Your task to perform on an android device: show emergency info Image 0: 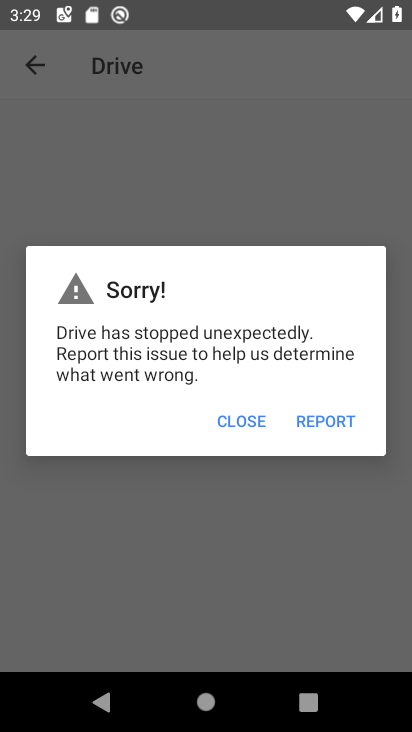
Step 0: press home button
Your task to perform on an android device: show emergency info Image 1: 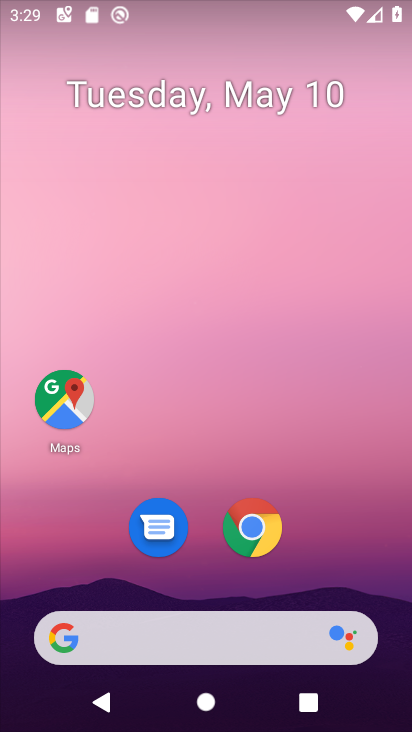
Step 1: drag from (396, 644) to (321, 310)
Your task to perform on an android device: show emergency info Image 2: 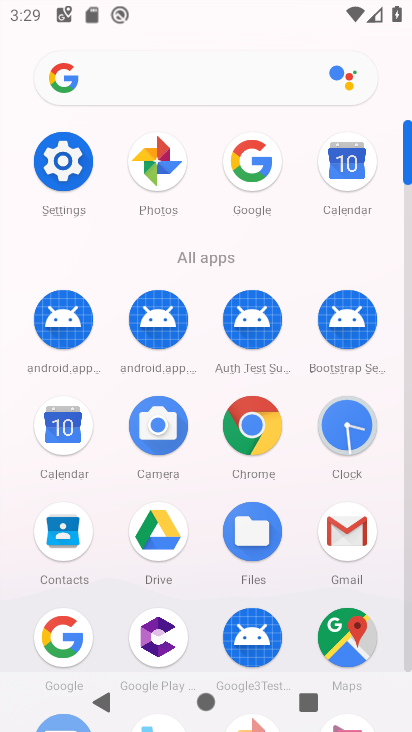
Step 2: click (68, 169)
Your task to perform on an android device: show emergency info Image 3: 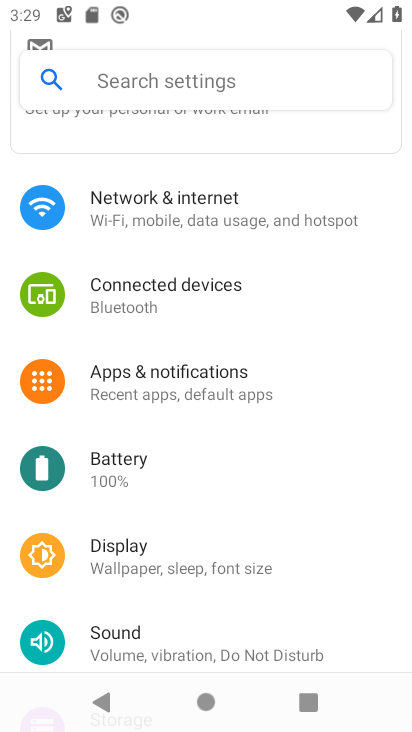
Step 3: drag from (347, 644) to (325, 318)
Your task to perform on an android device: show emergency info Image 4: 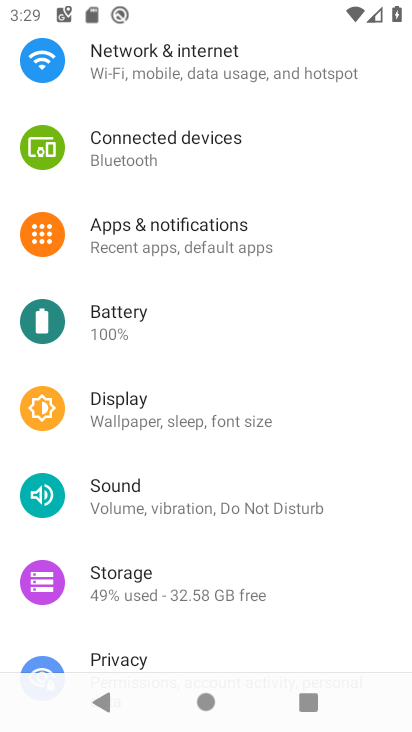
Step 4: drag from (370, 610) to (372, 308)
Your task to perform on an android device: show emergency info Image 5: 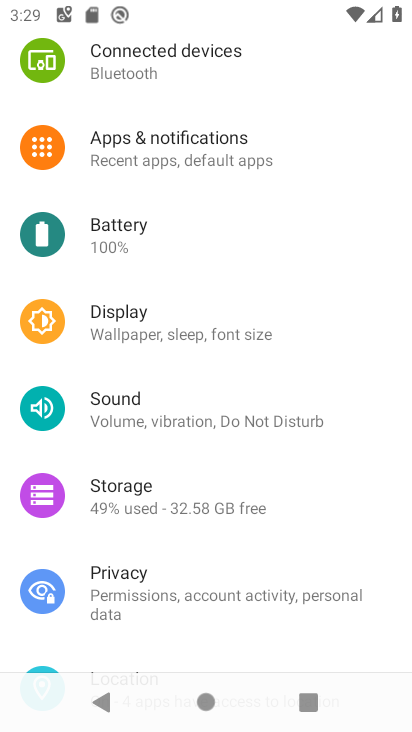
Step 5: drag from (380, 634) to (359, 283)
Your task to perform on an android device: show emergency info Image 6: 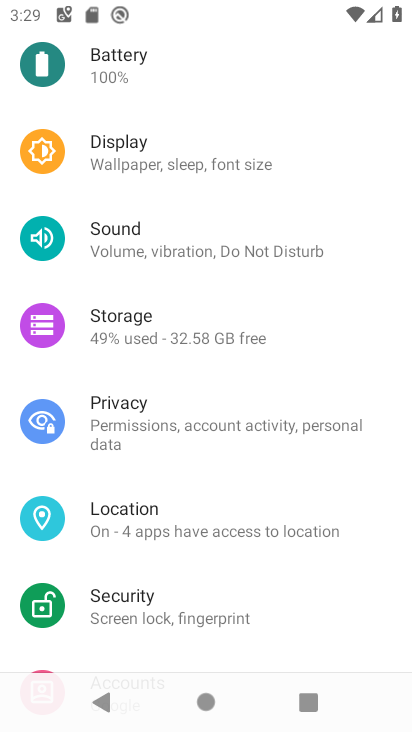
Step 6: drag from (371, 631) to (359, 330)
Your task to perform on an android device: show emergency info Image 7: 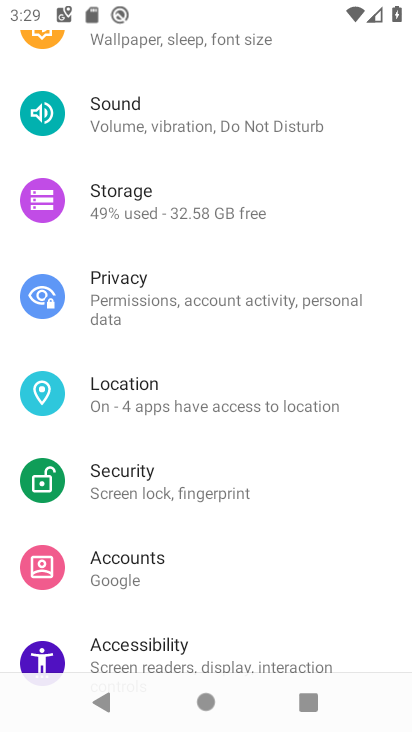
Step 7: drag from (393, 566) to (364, 253)
Your task to perform on an android device: show emergency info Image 8: 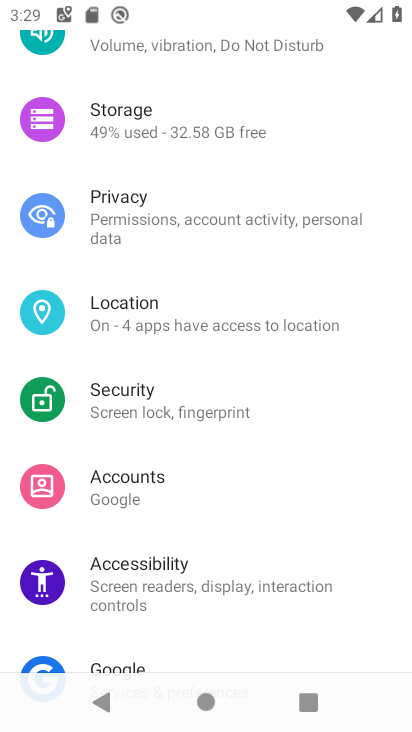
Step 8: drag from (361, 625) to (383, 226)
Your task to perform on an android device: show emergency info Image 9: 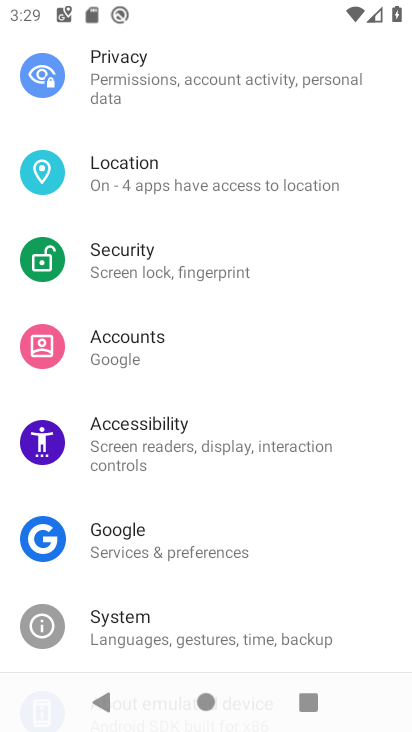
Step 9: drag from (357, 605) to (371, 349)
Your task to perform on an android device: show emergency info Image 10: 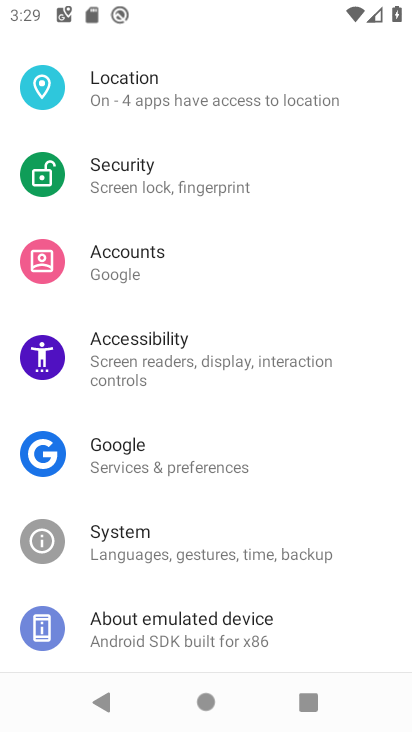
Step 10: click (144, 620)
Your task to perform on an android device: show emergency info Image 11: 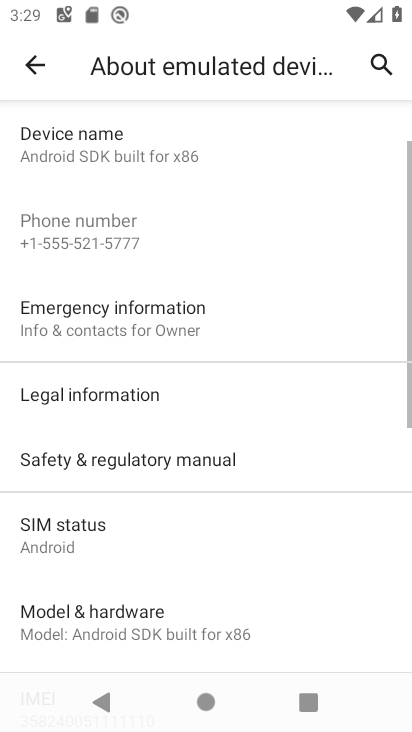
Step 11: click (81, 316)
Your task to perform on an android device: show emergency info Image 12: 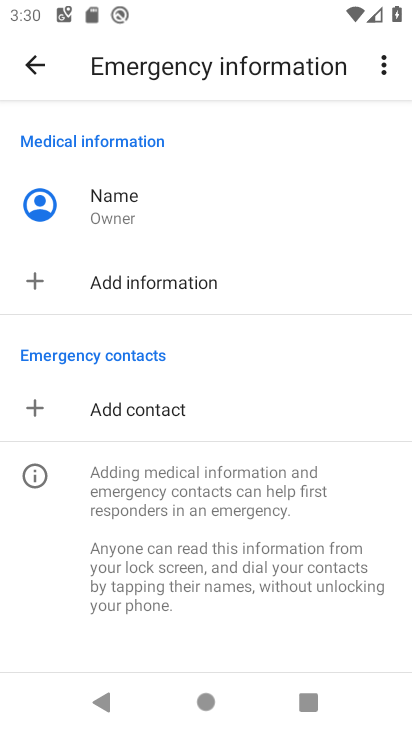
Step 12: task complete